Your task to perform on an android device: toggle translation in the chrome app Image 0: 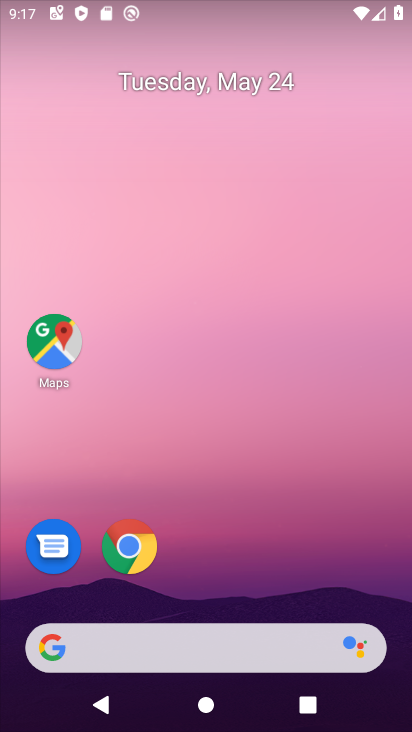
Step 0: click (143, 544)
Your task to perform on an android device: toggle translation in the chrome app Image 1: 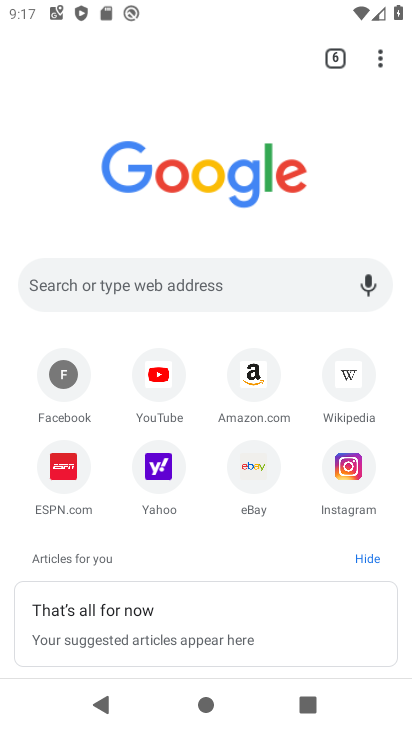
Step 1: click (377, 63)
Your task to perform on an android device: toggle translation in the chrome app Image 2: 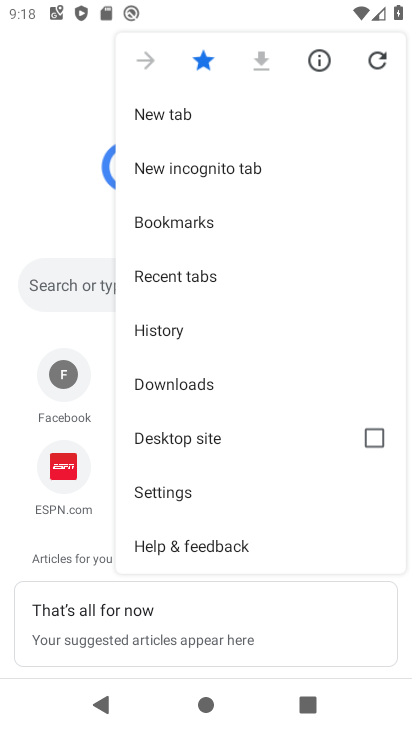
Step 2: click (196, 483)
Your task to perform on an android device: toggle translation in the chrome app Image 3: 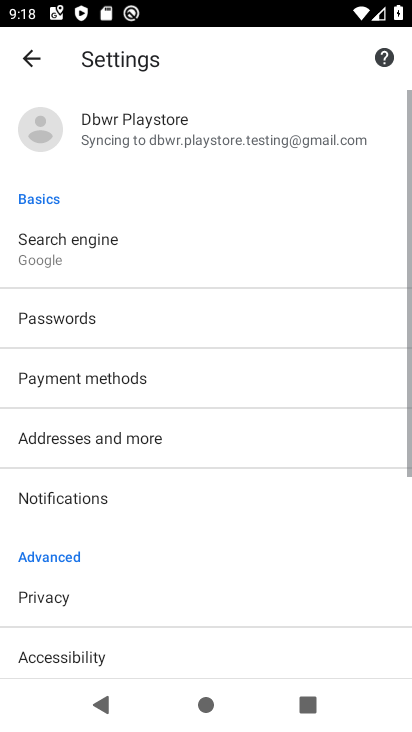
Step 3: drag from (245, 502) to (253, 215)
Your task to perform on an android device: toggle translation in the chrome app Image 4: 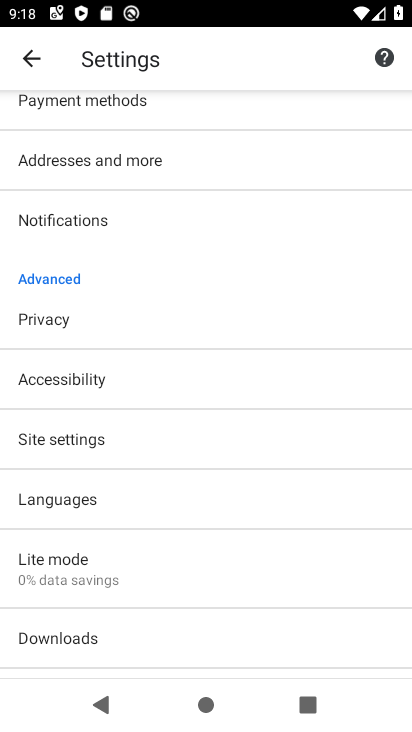
Step 4: click (232, 500)
Your task to perform on an android device: toggle translation in the chrome app Image 5: 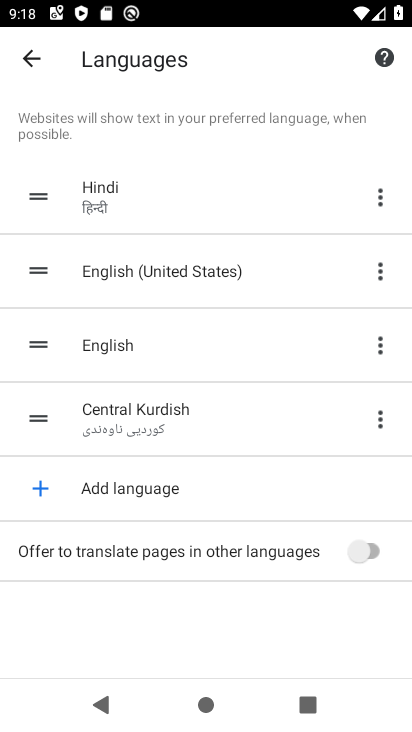
Step 5: click (365, 543)
Your task to perform on an android device: toggle translation in the chrome app Image 6: 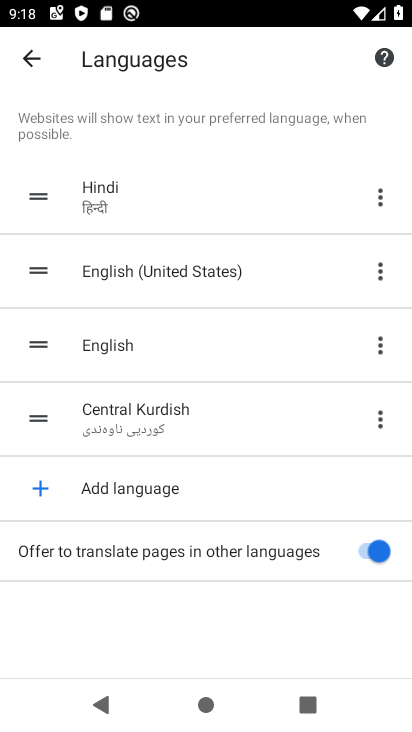
Step 6: task complete